Your task to perform on an android device: set the stopwatch Image 0: 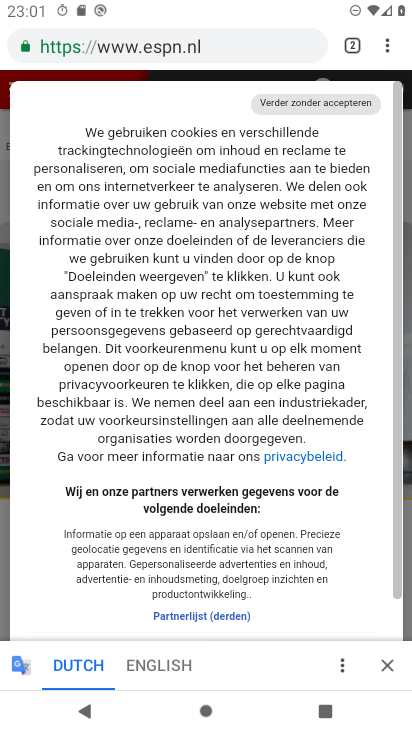
Step 0: press home button
Your task to perform on an android device: set the stopwatch Image 1: 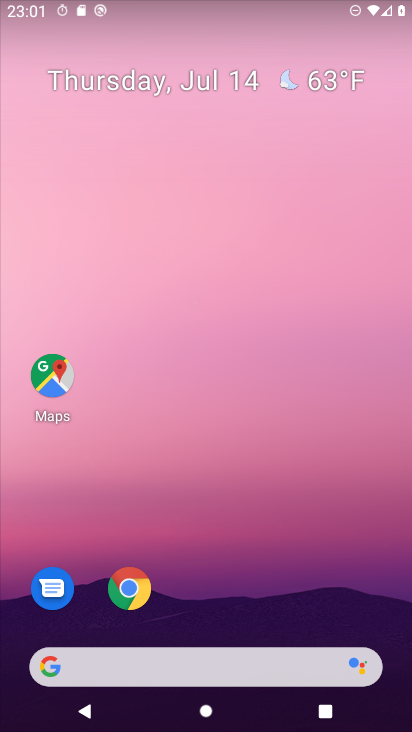
Step 1: drag from (286, 505) to (409, 0)
Your task to perform on an android device: set the stopwatch Image 2: 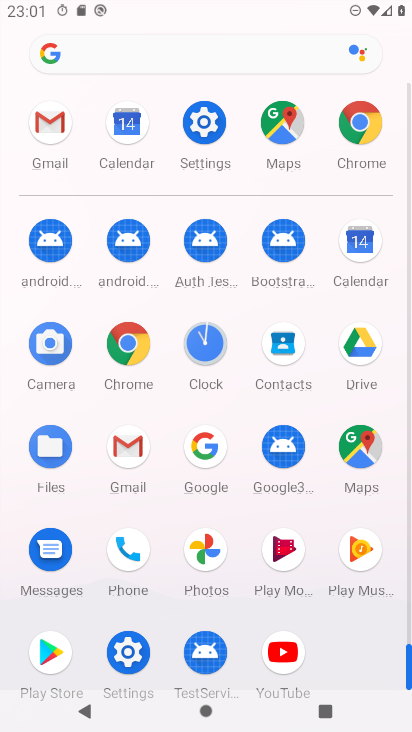
Step 2: click (204, 349)
Your task to perform on an android device: set the stopwatch Image 3: 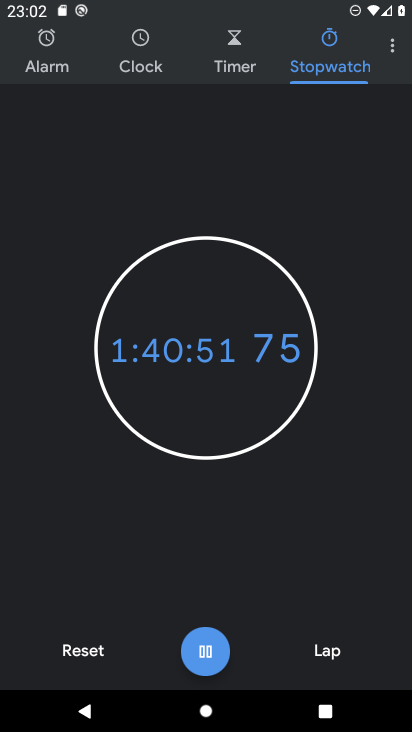
Step 3: task complete